Your task to perform on an android device: turn smart compose on in the gmail app Image 0: 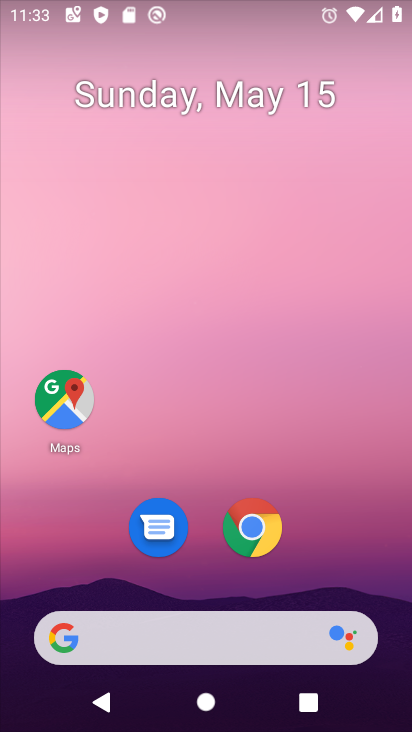
Step 0: drag from (367, 555) to (120, 18)
Your task to perform on an android device: turn smart compose on in the gmail app Image 1: 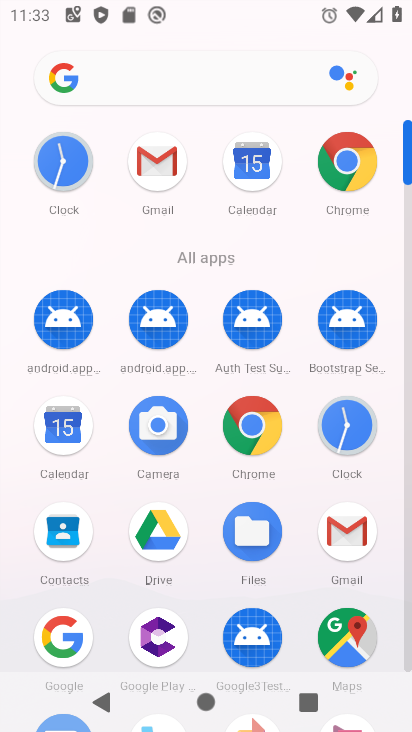
Step 1: click (148, 180)
Your task to perform on an android device: turn smart compose on in the gmail app Image 2: 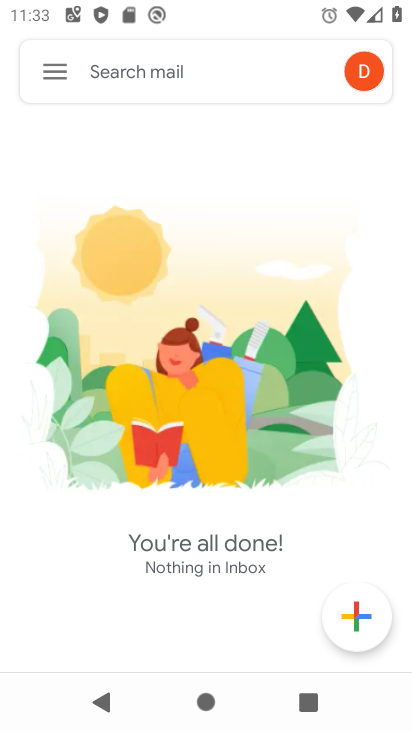
Step 2: click (43, 85)
Your task to perform on an android device: turn smart compose on in the gmail app Image 3: 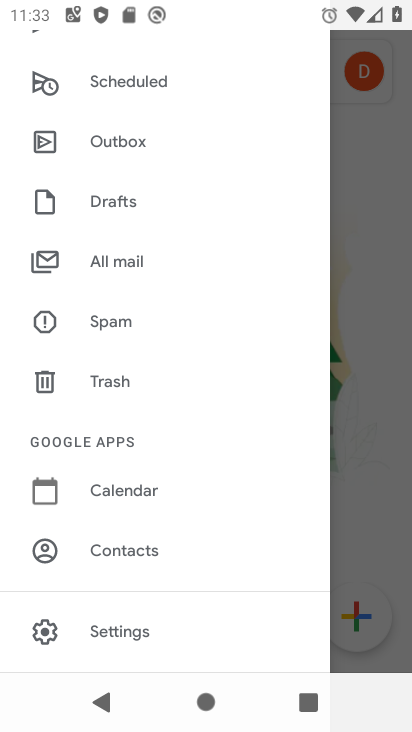
Step 3: click (129, 625)
Your task to perform on an android device: turn smart compose on in the gmail app Image 4: 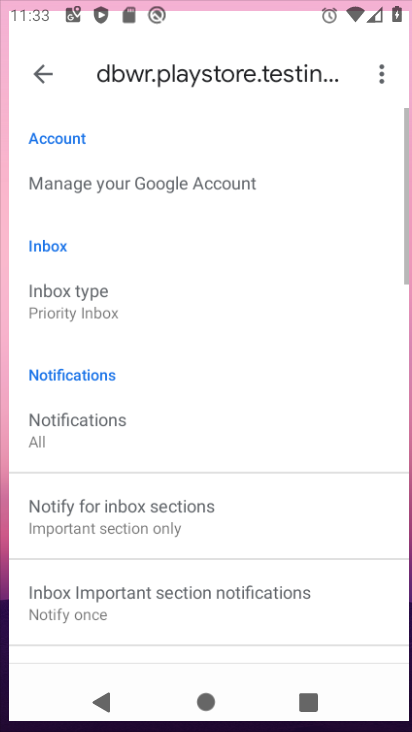
Step 4: drag from (166, 603) to (166, 182)
Your task to perform on an android device: turn smart compose on in the gmail app Image 5: 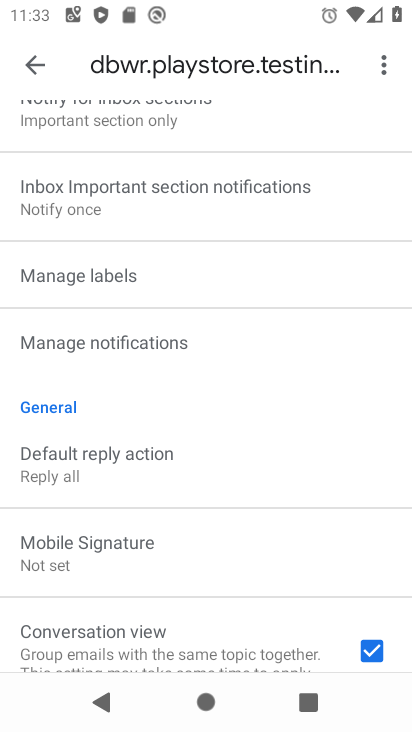
Step 5: drag from (185, 615) to (206, 391)
Your task to perform on an android device: turn smart compose on in the gmail app Image 6: 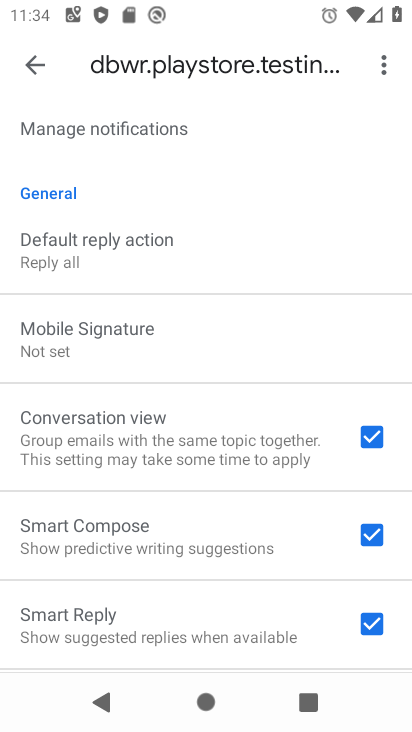
Step 6: click (373, 542)
Your task to perform on an android device: turn smart compose on in the gmail app Image 7: 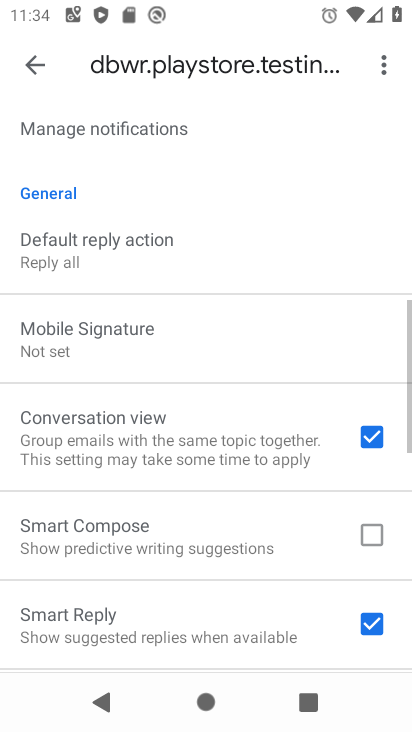
Step 7: click (314, 544)
Your task to perform on an android device: turn smart compose on in the gmail app Image 8: 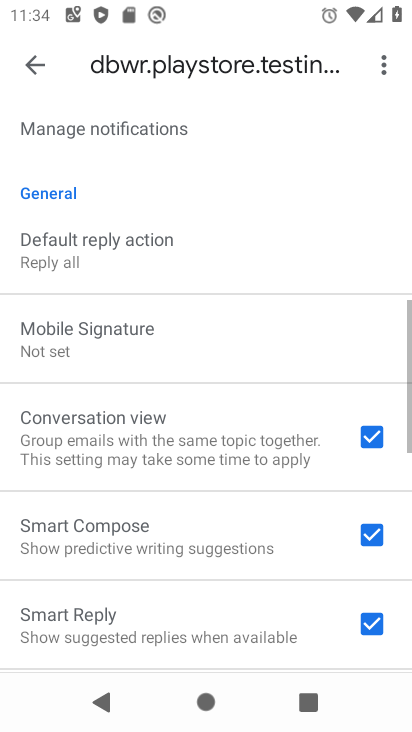
Step 8: task complete